Your task to perform on an android device: turn off priority inbox in the gmail app Image 0: 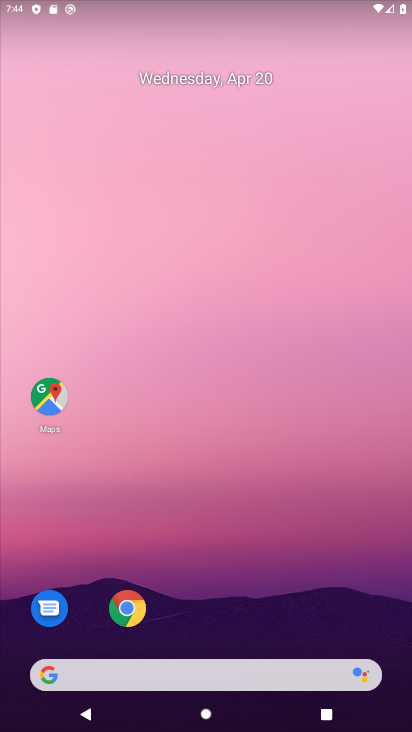
Step 0: drag from (224, 626) to (300, 69)
Your task to perform on an android device: turn off priority inbox in the gmail app Image 1: 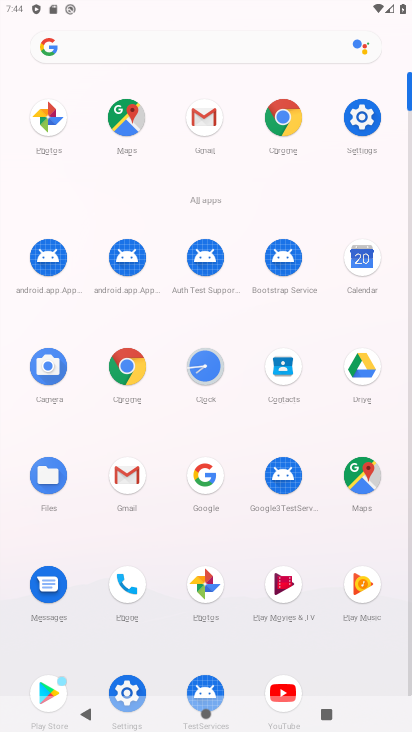
Step 1: click (199, 133)
Your task to perform on an android device: turn off priority inbox in the gmail app Image 2: 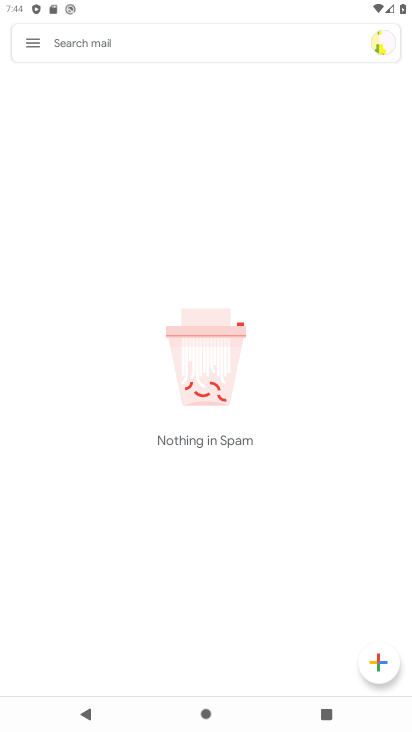
Step 2: click (23, 49)
Your task to perform on an android device: turn off priority inbox in the gmail app Image 3: 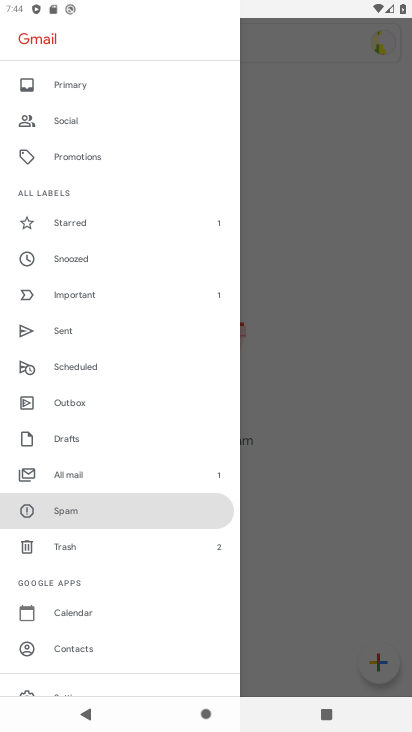
Step 3: drag from (103, 622) to (165, 350)
Your task to perform on an android device: turn off priority inbox in the gmail app Image 4: 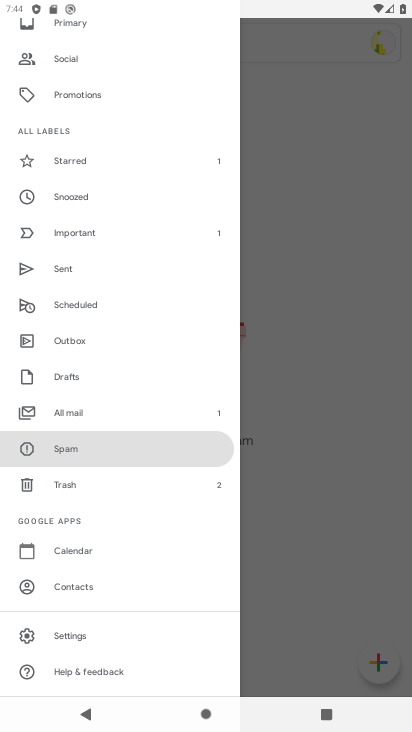
Step 4: click (89, 636)
Your task to perform on an android device: turn off priority inbox in the gmail app Image 5: 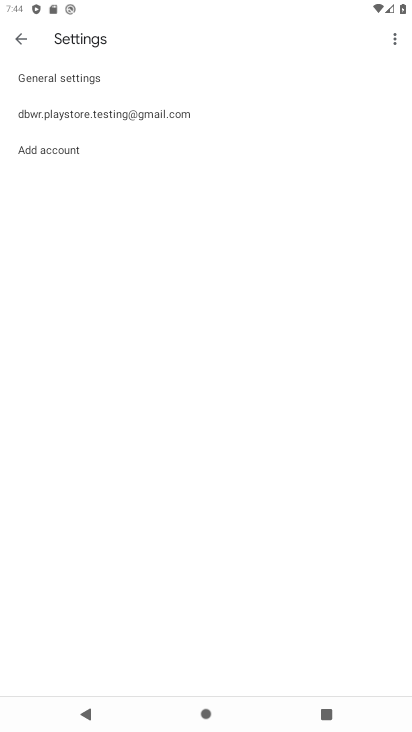
Step 5: click (85, 631)
Your task to perform on an android device: turn off priority inbox in the gmail app Image 6: 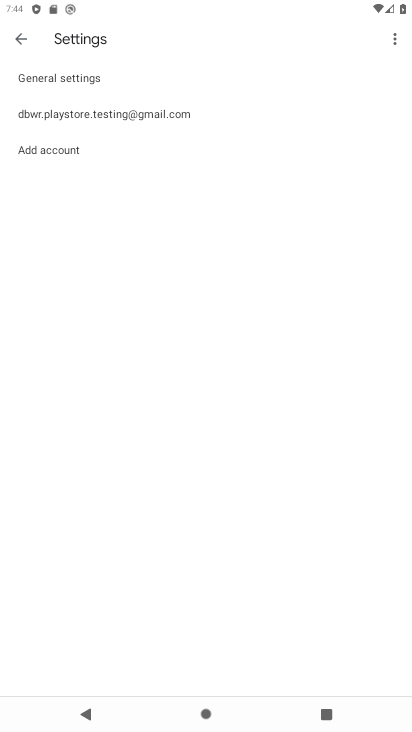
Step 6: click (83, 117)
Your task to perform on an android device: turn off priority inbox in the gmail app Image 7: 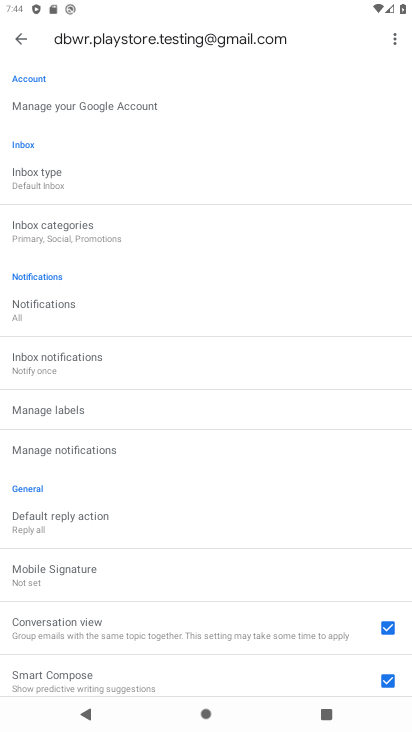
Step 7: click (46, 170)
Your task to perform on an android device: turn off priority inbox in the gmail app Image 8: 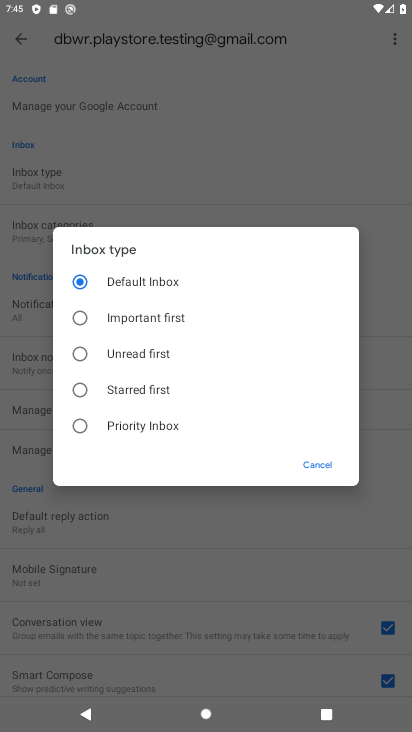
Step 8: task complete